Your task to perform on an android device: toggle wifi Image 0: 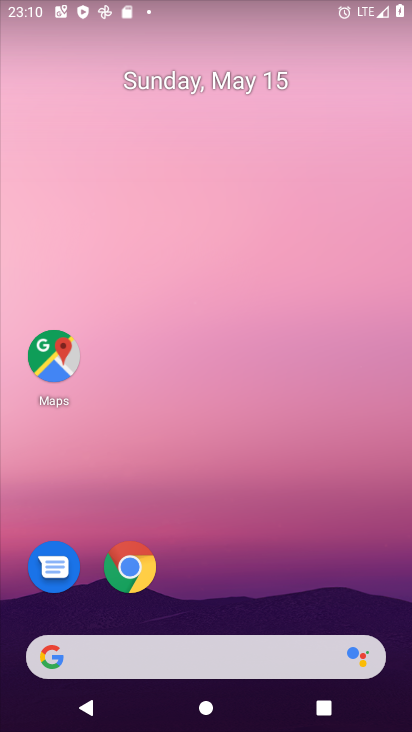
Step 0: drag from (253, 704) to (44, 58)
Your task to perform on an android device: toggle wifi Image 1: 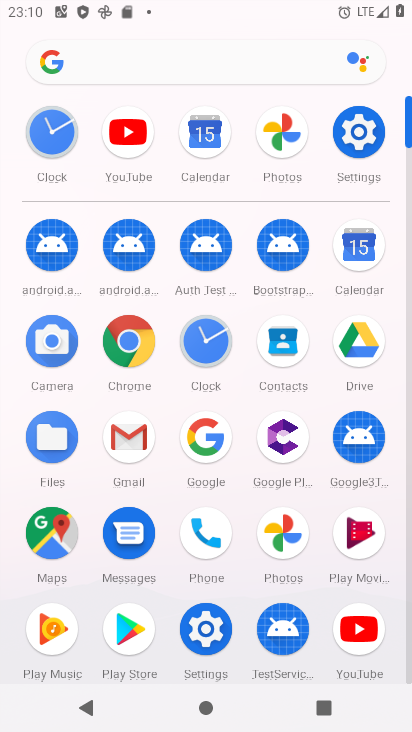
Step 1: click (354, 111)
Your task to perform on an android device: toggle wifi Image 2: 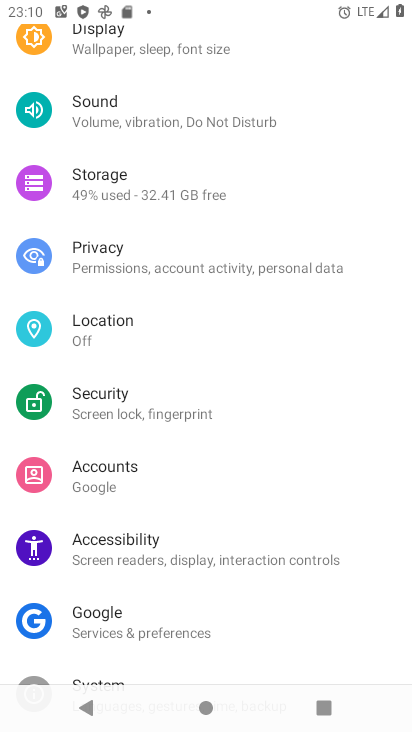
Step 2: drag from (202, 263) to (209, 729)
Your task to perform on an android device: toggle wifi Image 3: 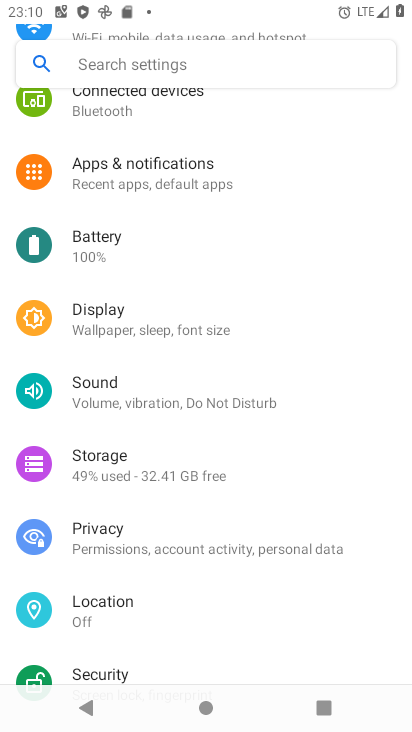
Step 3: drag from (290, 146) to (284, 659)
Your task to perform on an android device: toggle wifi Image 4: 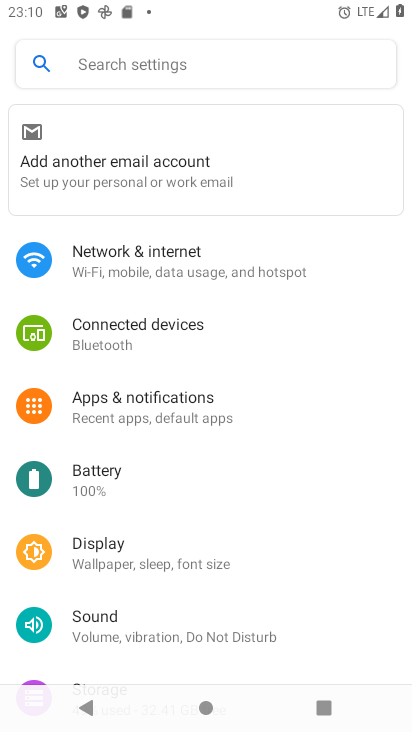
Step 4: click (269, 265)
Your task to perform on an android device: toggle wifi Image 5: 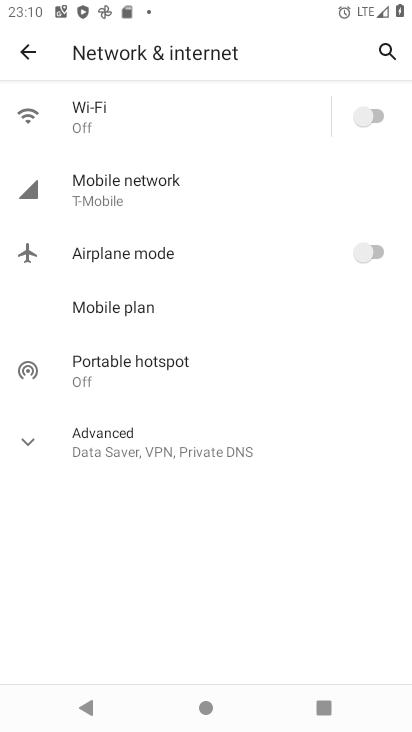
Step 5: click (372, 110)
Your task to perform on an android device: toggle wifi Image 6: 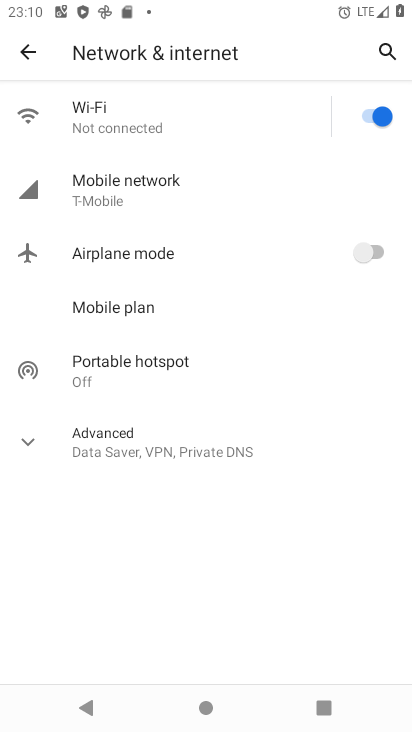
Step 6: task complete